Your task to perform on an android device: Open Wikipedia Image 0: 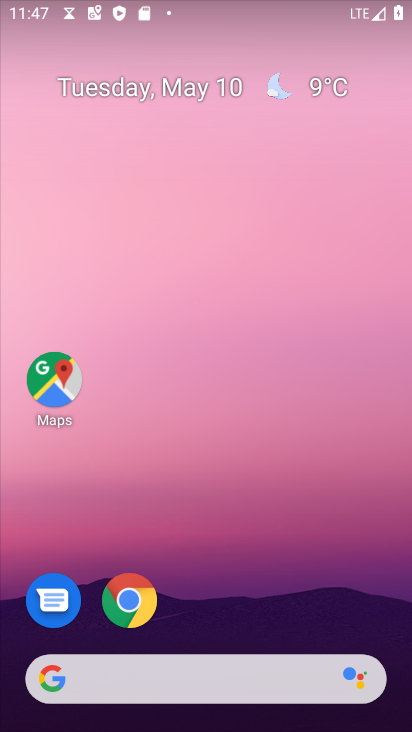
Step 0: click (133, 608)
Your task to perform on an android device: Open Wikipedia Image 1: 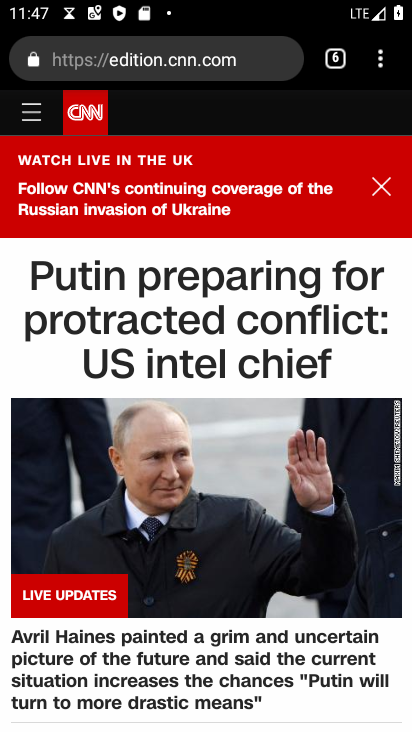
Step 1: click (342, 59)
Your task to perform on an android device: Open Wikipedia Image 2: 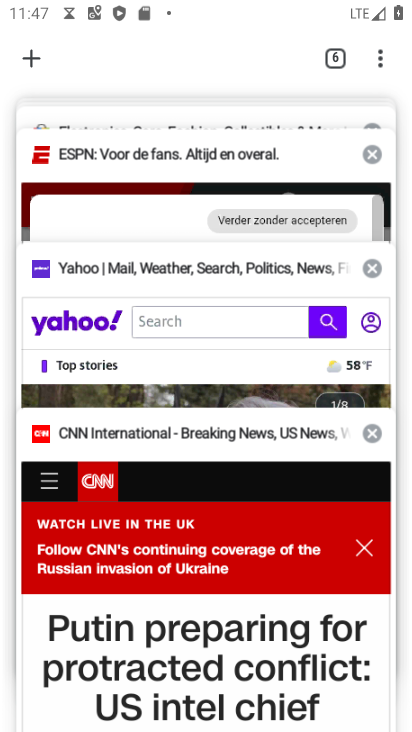
Step 2: drag from (150, 146) to (146, 513)
Your task to perform on an android device: Open Wikipedia Image 3: 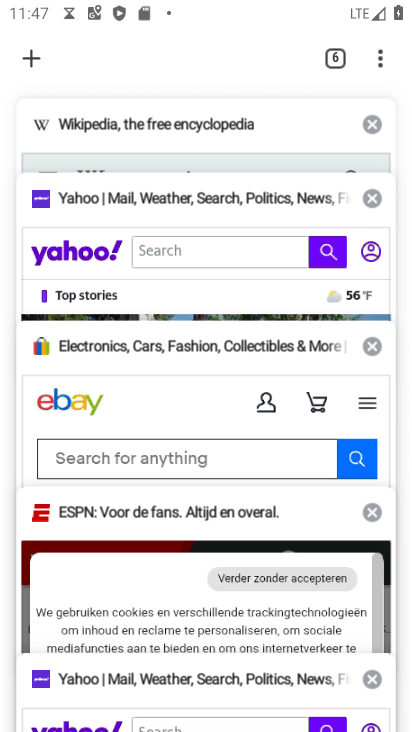
Step 3: click (163, 117)
Your task to perform on an android device: Open Wikipedia Image 4: 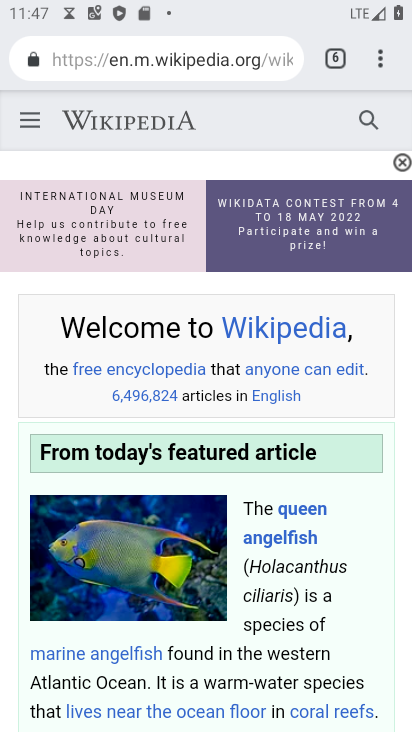
Step 4: task complete